Your task to perform on an android device: Clear the cart on walmart. Add dell xps to the cart on walmart, then select checkout. Image 0: 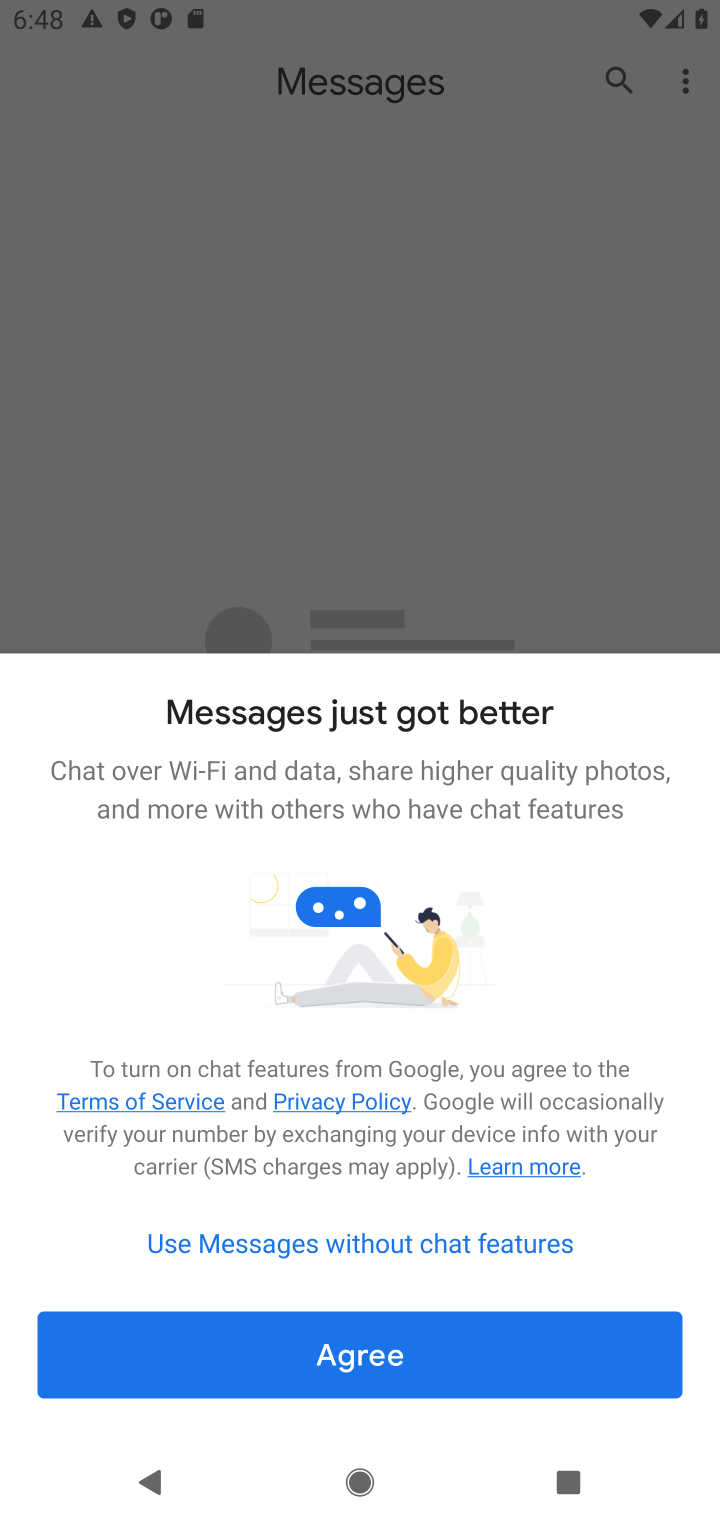
Step 0: press home button
Your task to perform on an android device: Clear the cart on walmart. Add dell xps to the cart on walmart, then select checkout. Image 1: 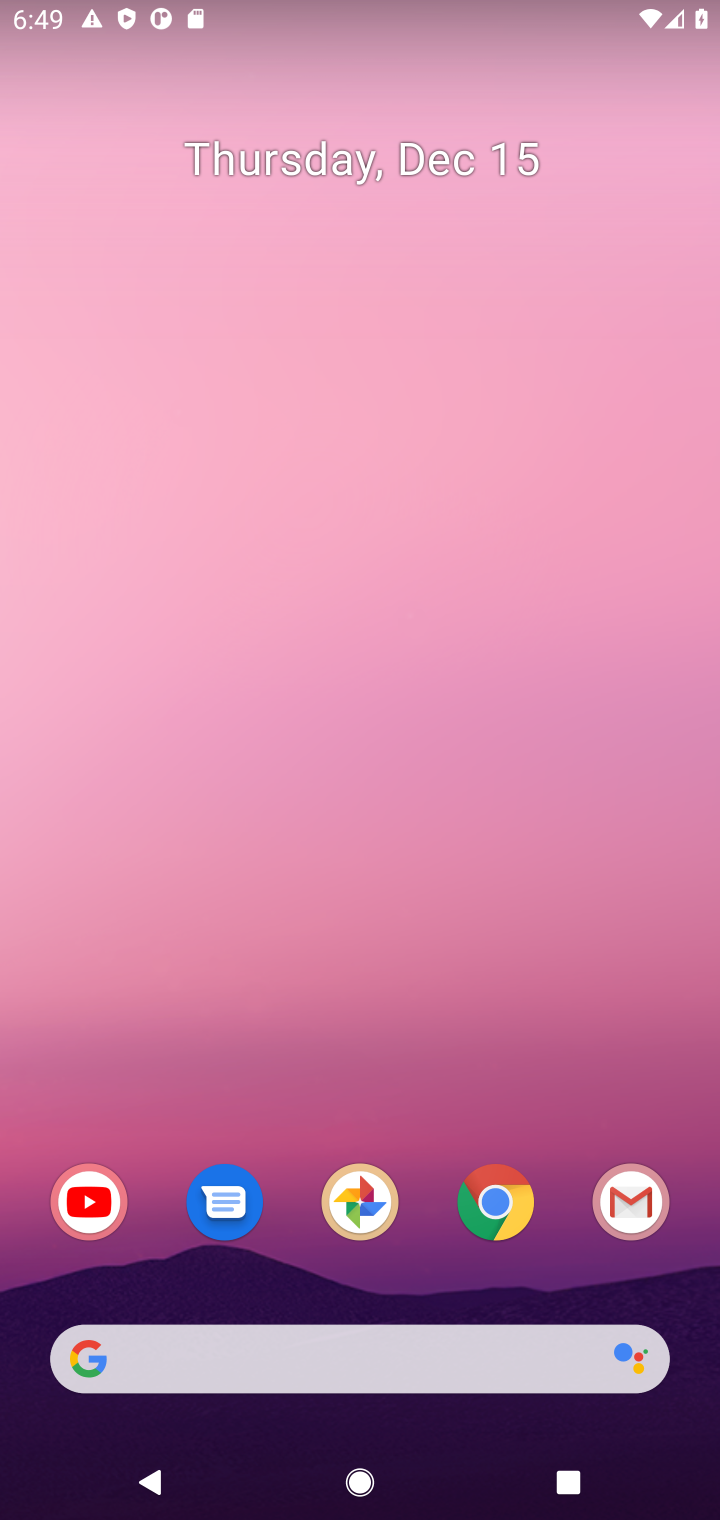
Step 1: click (497, 1211)
Your task to perform on an android device: Clear the cart on walmart. Add dell xps to the cart on walmart, then select checkout. Image 2: 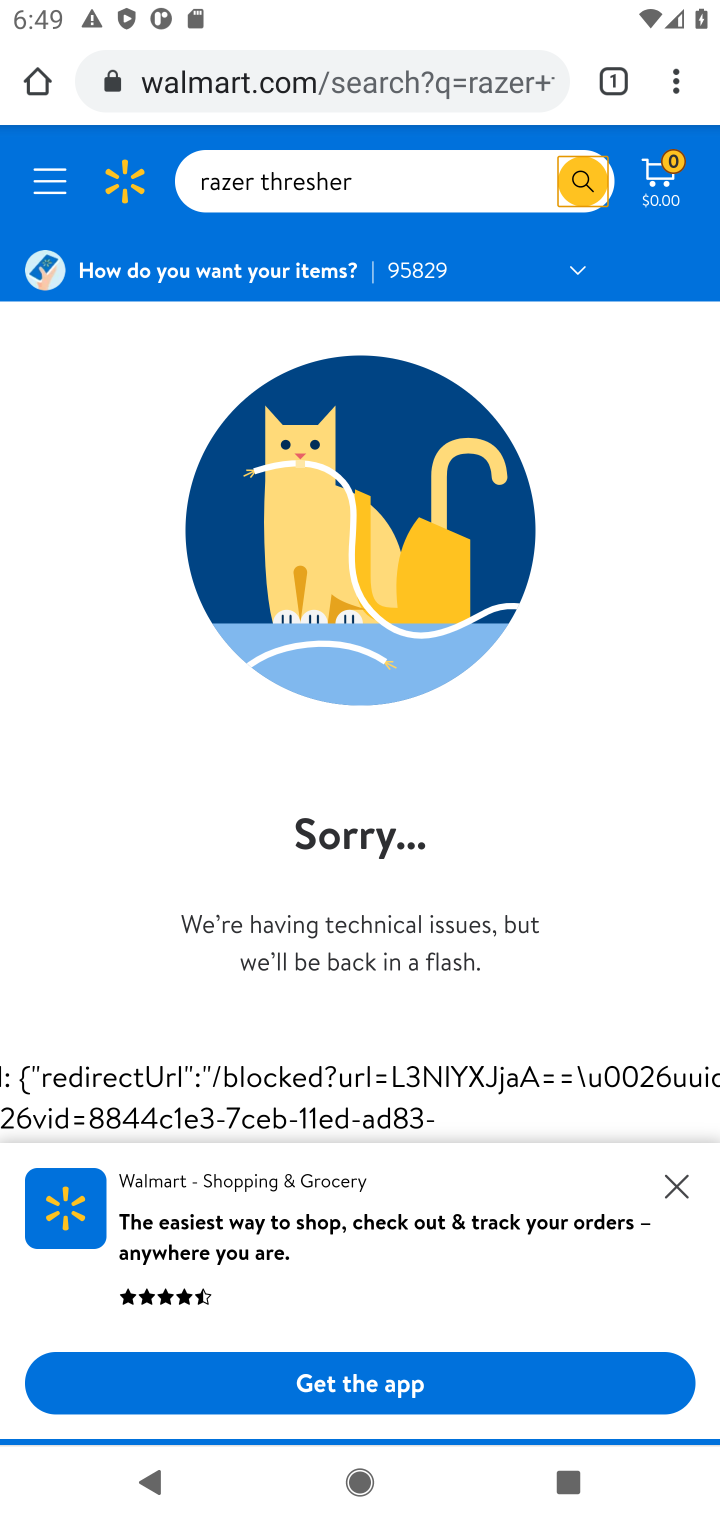
Step 2: click (662, 173)
Your task to perform on an android device: Clear the cart on walmart. Add dell xps to the cart on walmart, then select checkout. Image 3: 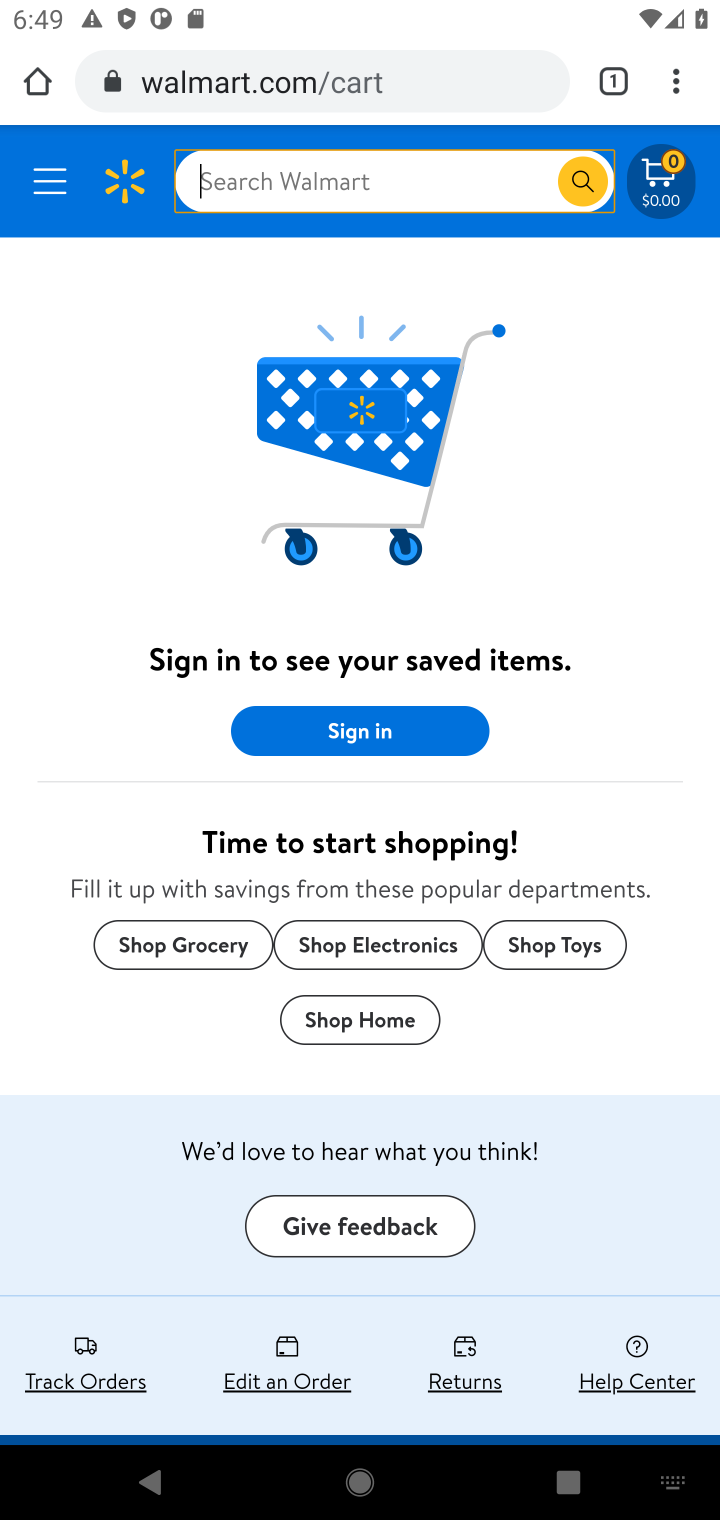
Step 3: click (270, 201)
Your task to perform on an android device: Clear the cart on walmart. Add dell xps to the cart on walmart, then select checkout. Image 4: 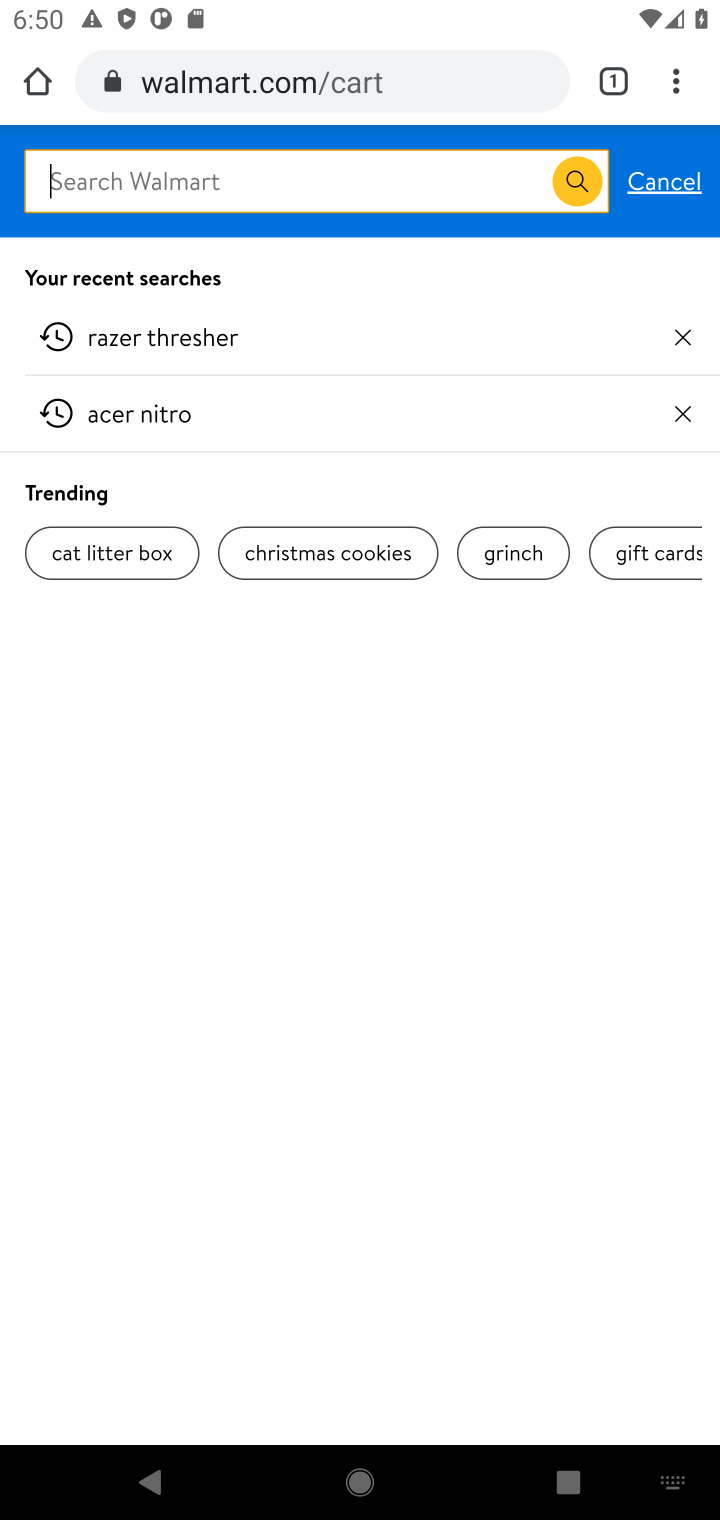
Step 4: type "dell xps"
Your task to perform on an android device: Clear the cart on walmart. Add dell xps to the cart on walmart, then select checkout. Image 5: 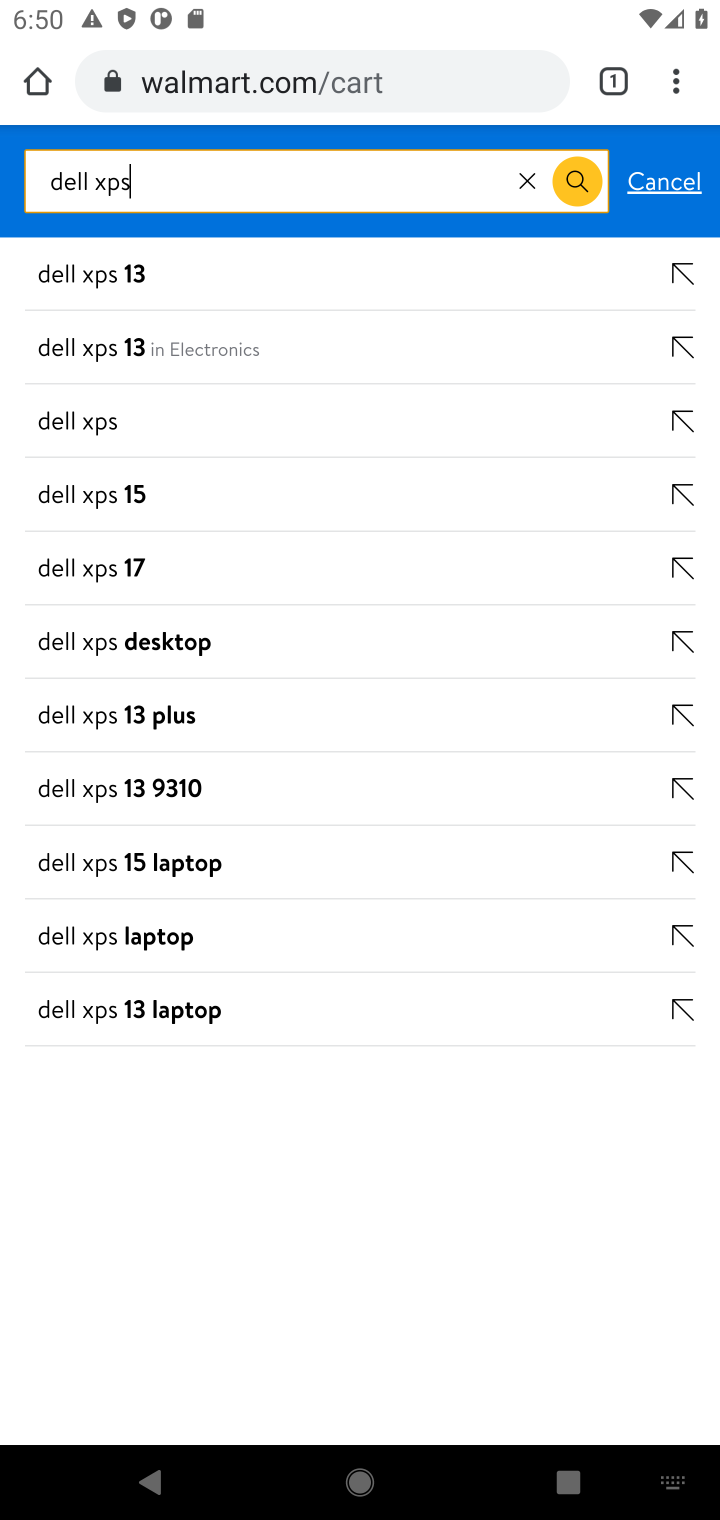
Step 5: click (49, 425)
Your task to perform on an android device: Clear the cart on walmart. Add dell xps to the cart on walmart, then select checkout. Image 6: 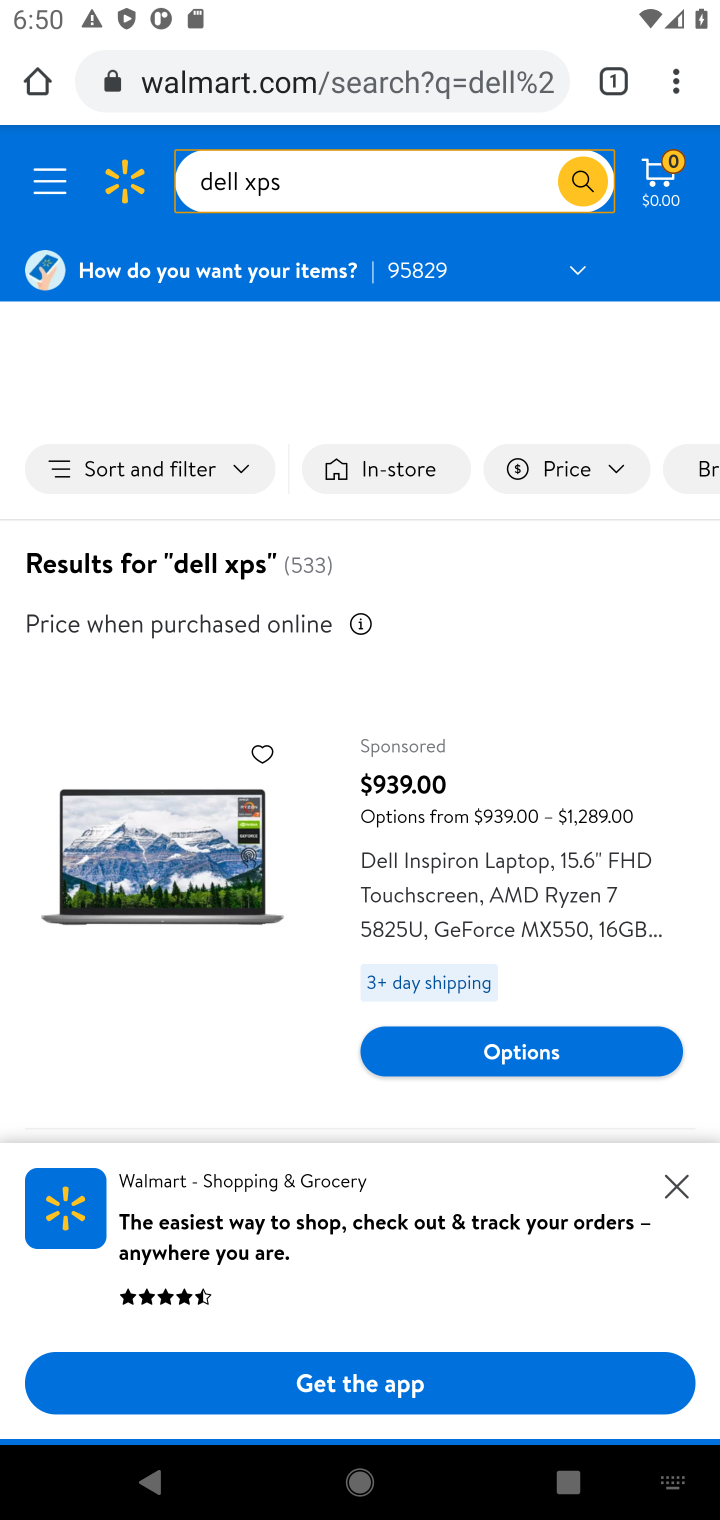
Step 6: drag from (344, 762) to (349, 249)
Your task to perform on an android device: Clear the cart on walmart. Add dell xps to the cart on walmart, then select checkout. Image 7: 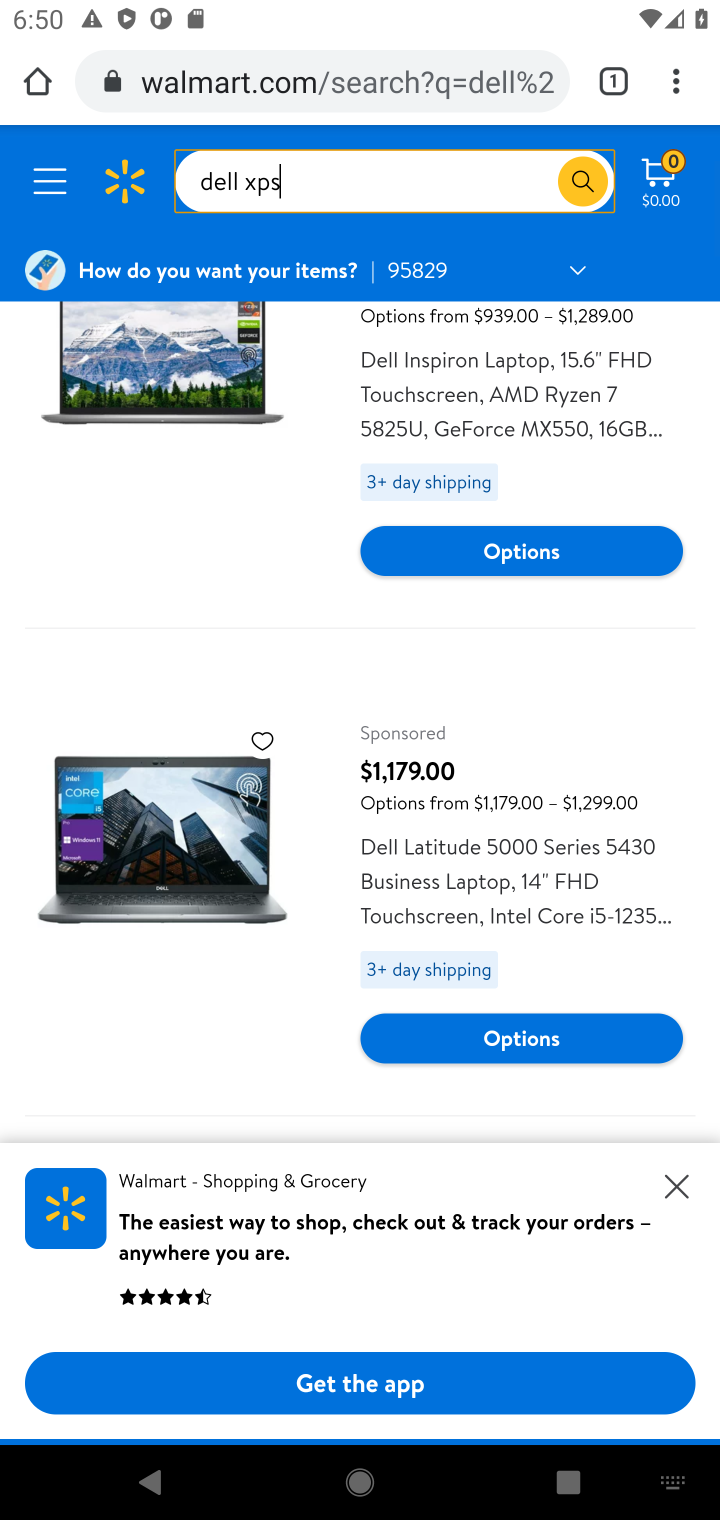
Step 7: drag from (327, 737) to (302, 354)
Your task to perform on an android device: Clear the cart on walmart. Add dell xps to the cart on walmart, then select checkout. Image 8: 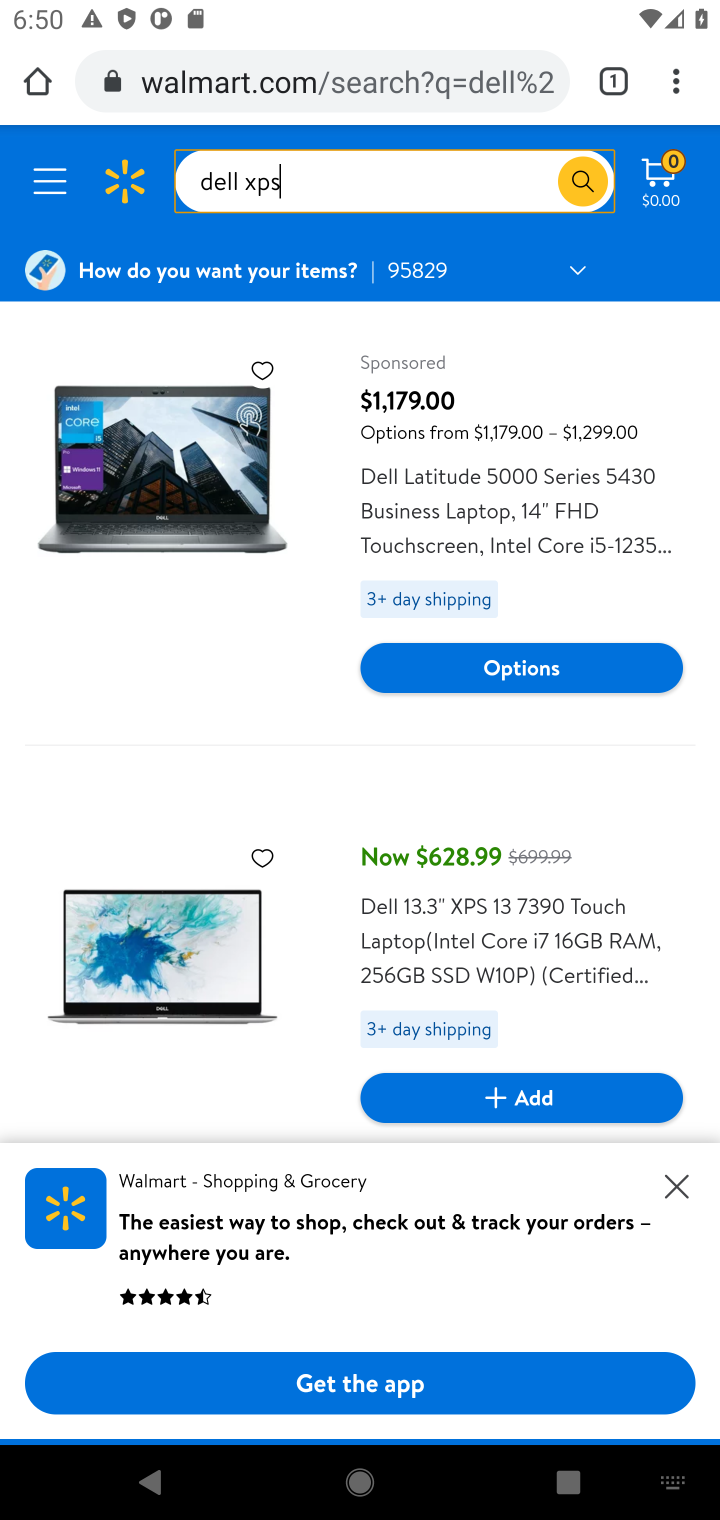
Step 8: drag from (285, 744) to (293, 465)
Your task to perform on an android device: Clear the cart on walmart. Add dell xps to the cart on walmart, then select checkout. Image 9: 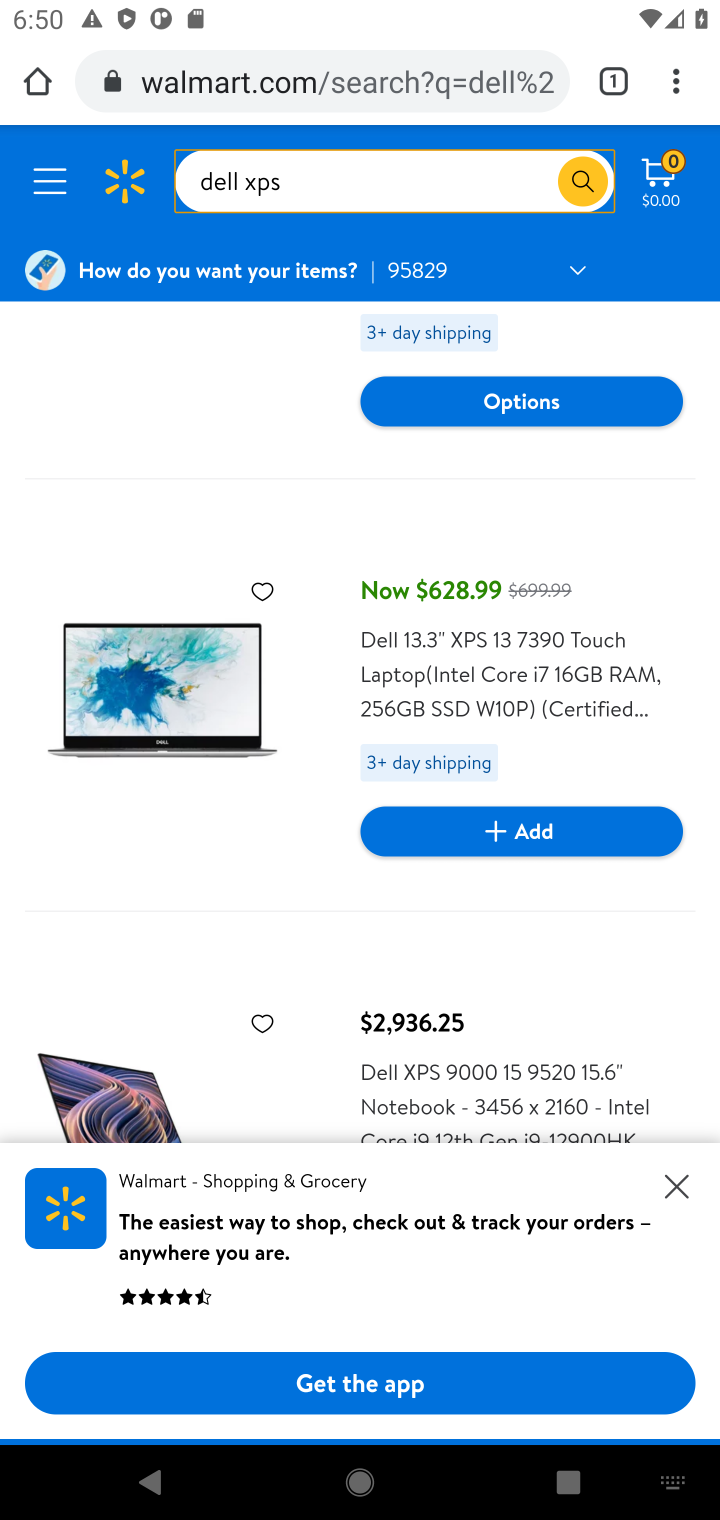
Step 9: click (493, 842)
Your task to perform on an android device: Clear the cart on walmart. Add dell xps to the cart on walmart, then select checkout. Image 10: 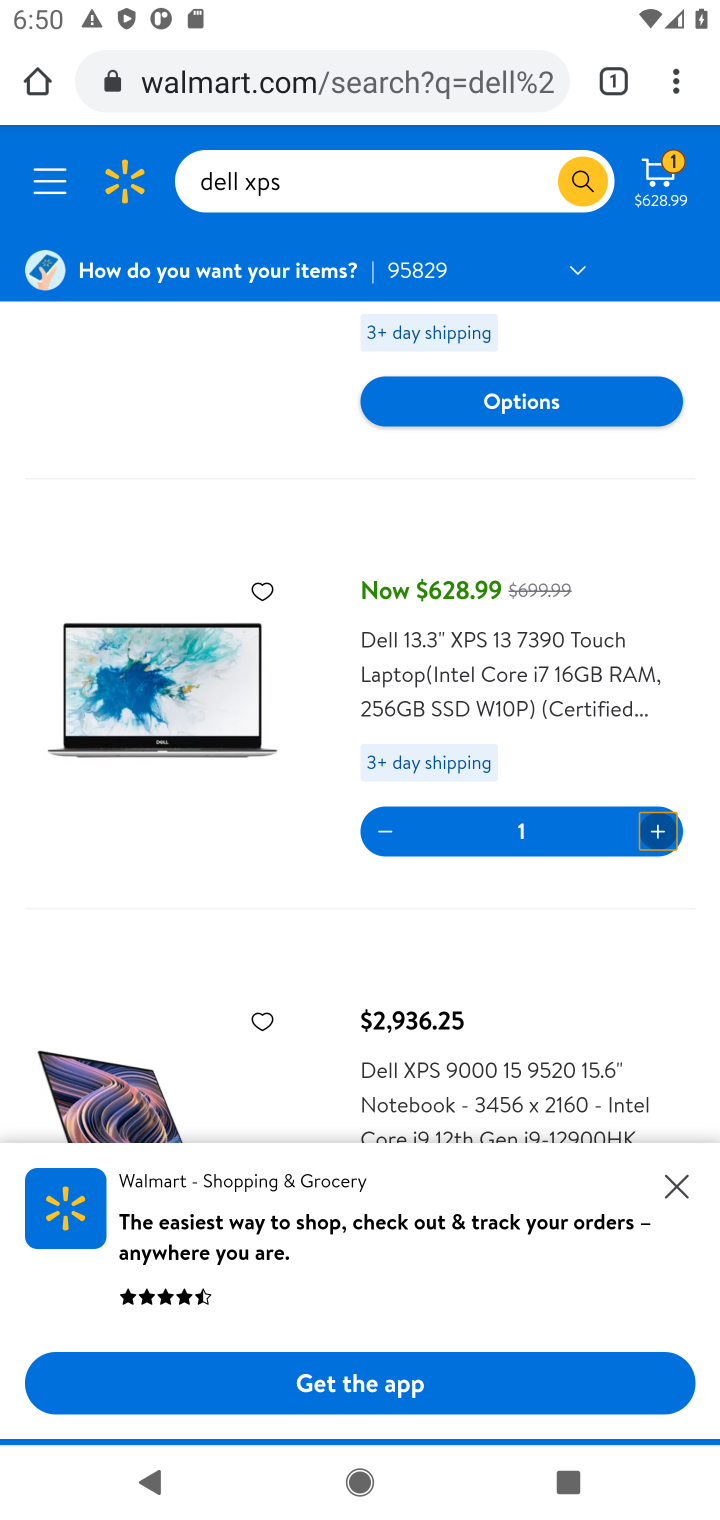
Step 10: click (658, 199)
Your task to perform on an android device: Clear the cart on walmart. Add dell xps to the cart on walmart, then select checkout. Image 11: 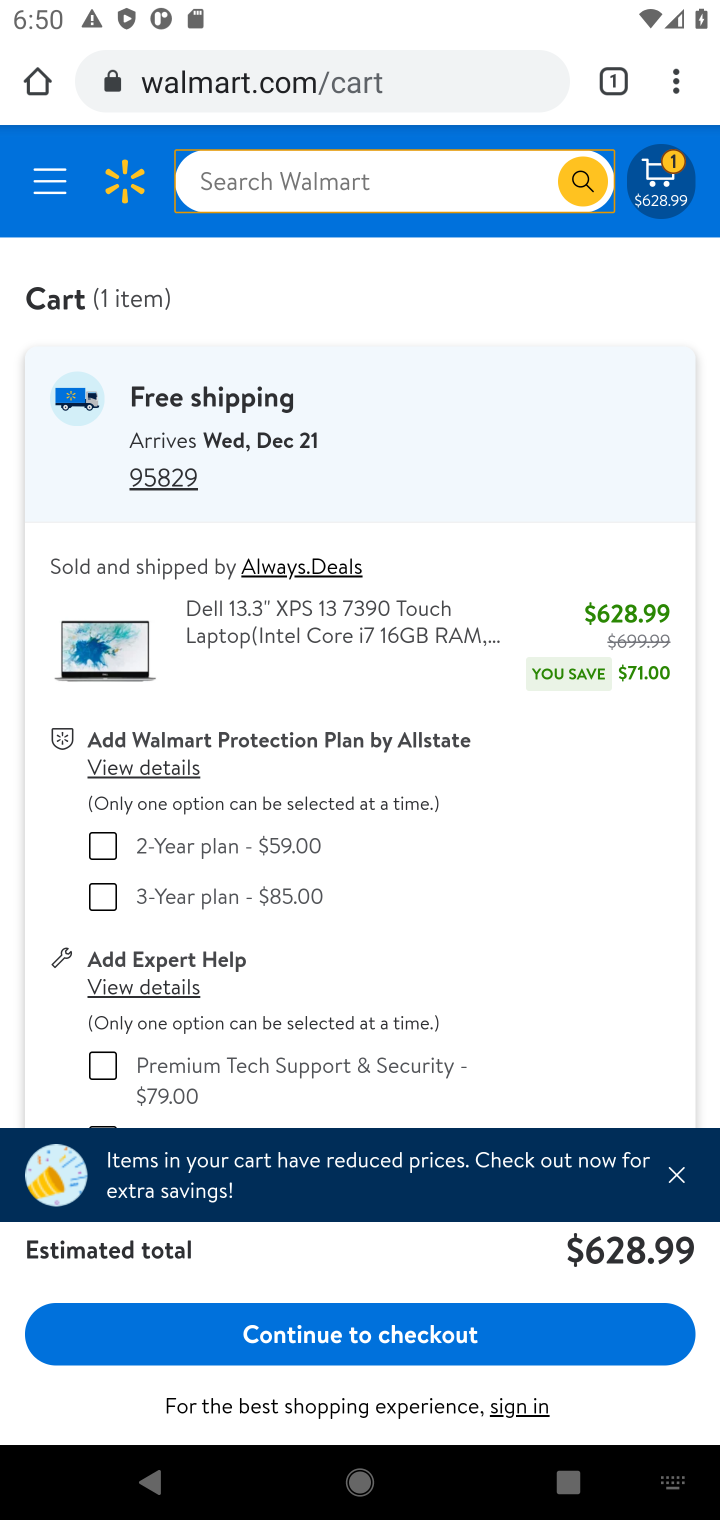
Step 11: click (338, 1339)
Your task to perform on an android device: Clear the cart on walmart. Add dell xps to the cart on walmart, then select checkout. Image 12: 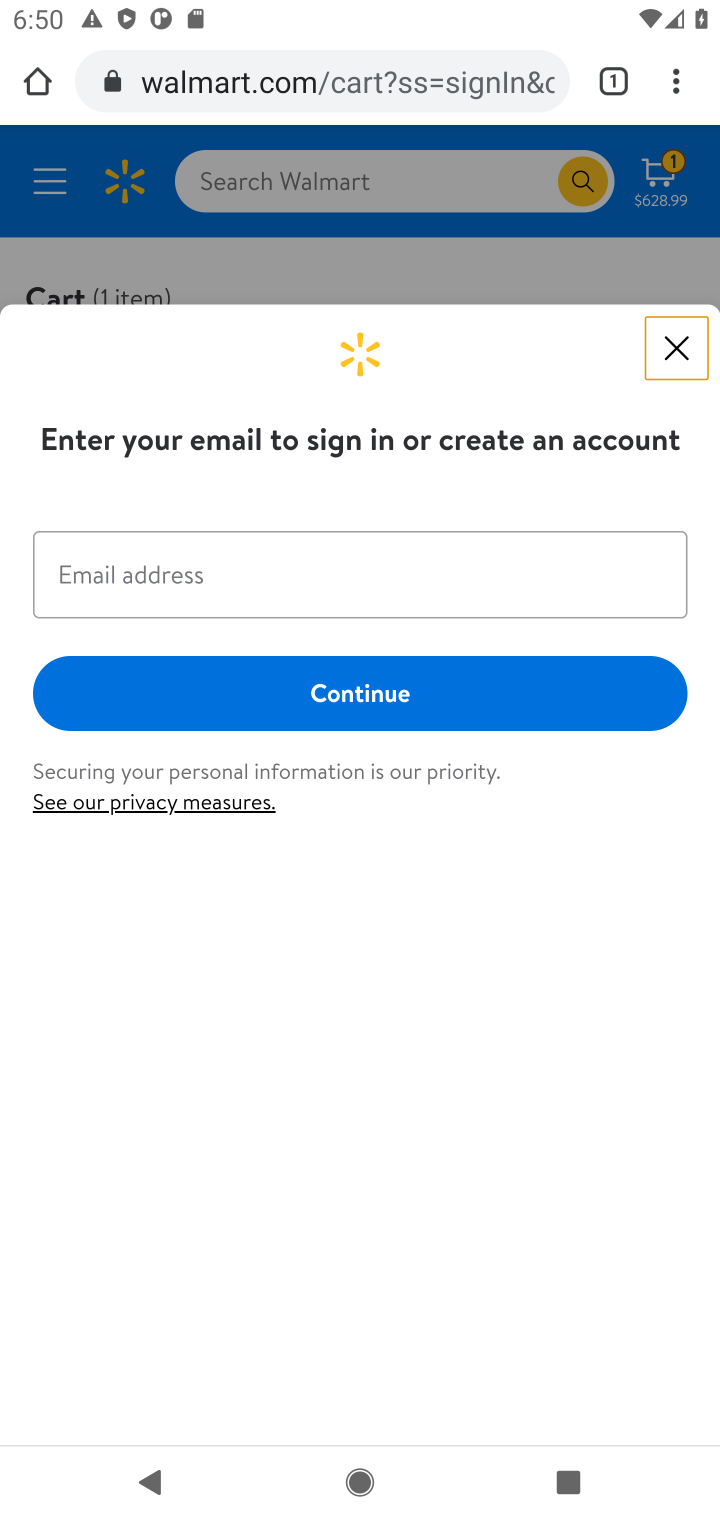
Step 12: task complete